Your task to perform on an android device: Search for the best selling book on Amazon. Image 0: 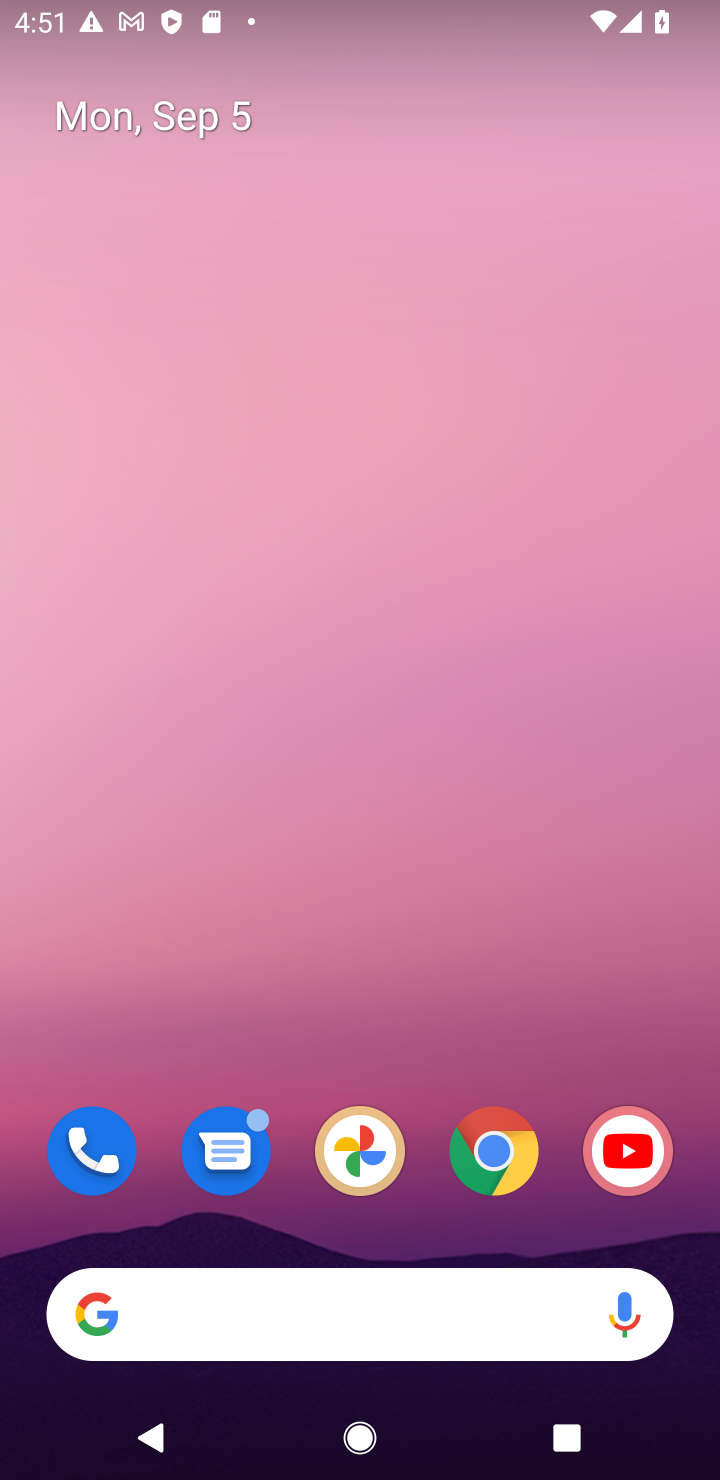
Step 0: click (500, 1164)
Your task to perform on an android device: Search for the best selling book on Amazon. Image 1: 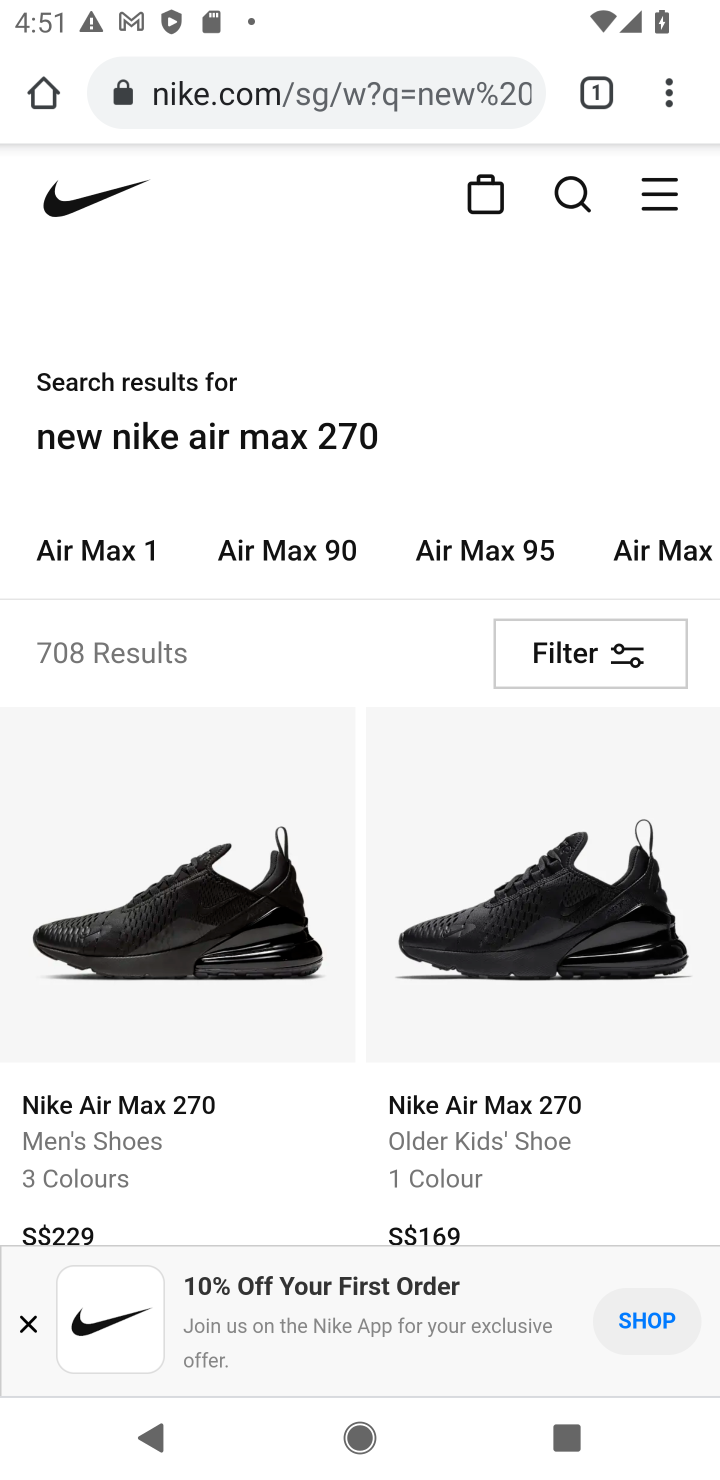
Step 1: click (393, 99)
Your task to perform on an android device: Search for the best selling book on Amazon. Image 2: 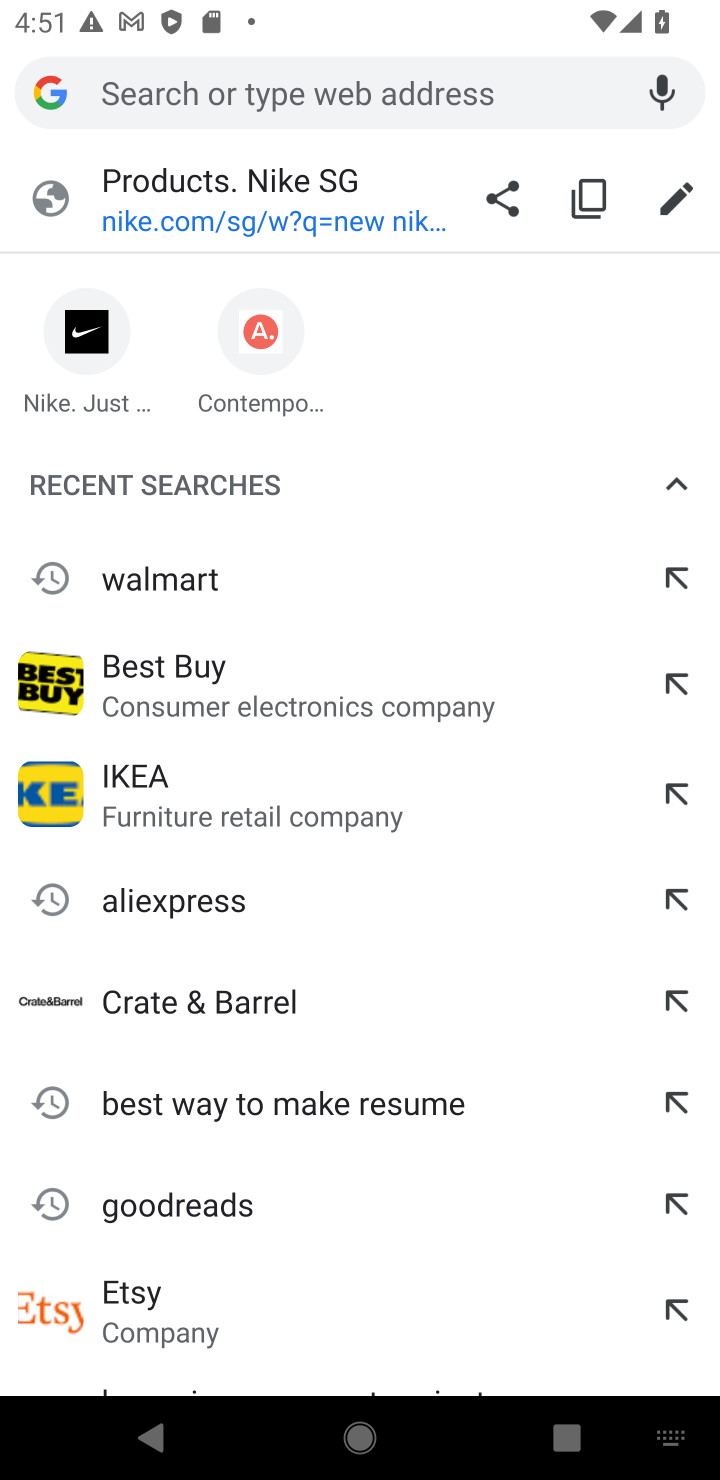
Step 2: type "amazon"
Your task to perform on an android device: Search for the best selling book on Amazon. Image 3: 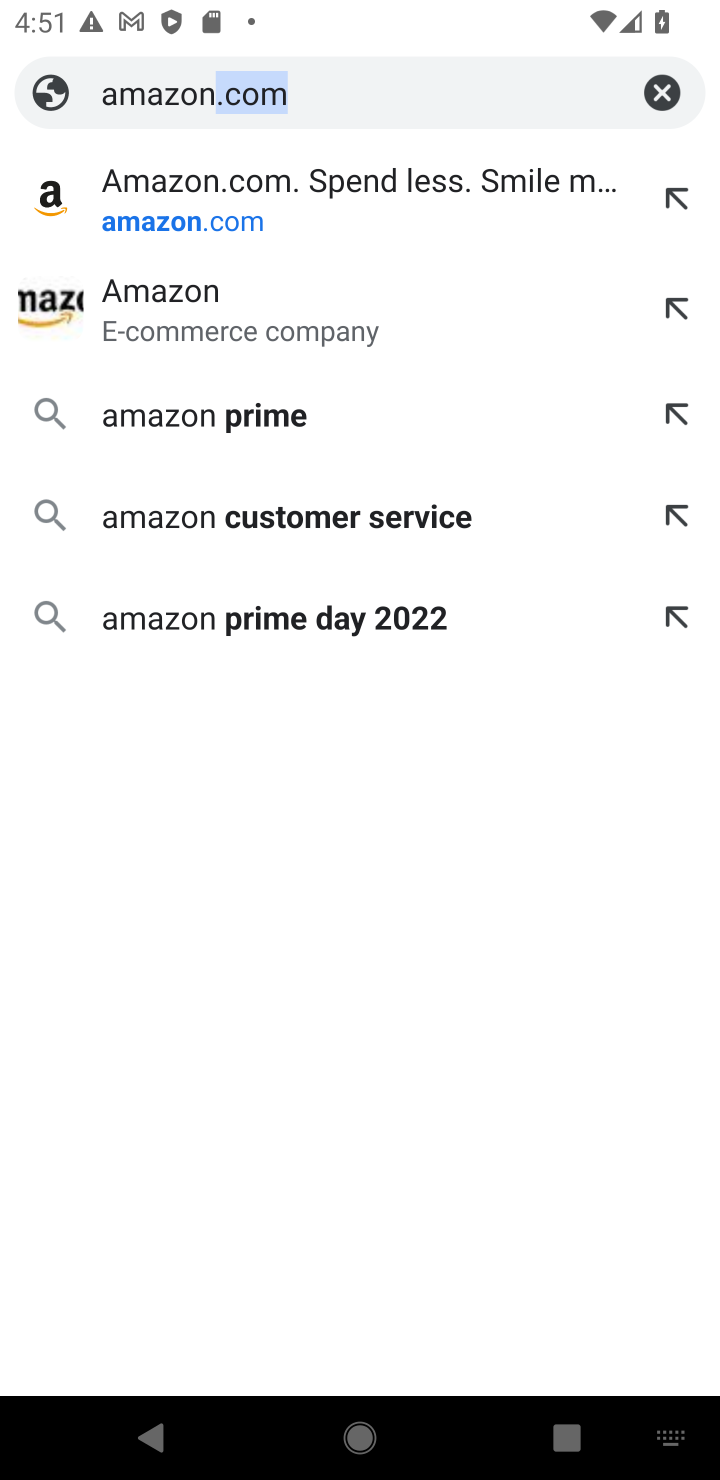
Step 3: click (387, 215)
Your task to perform on an android device: Search for the best selling book on Amazon. Image 4: 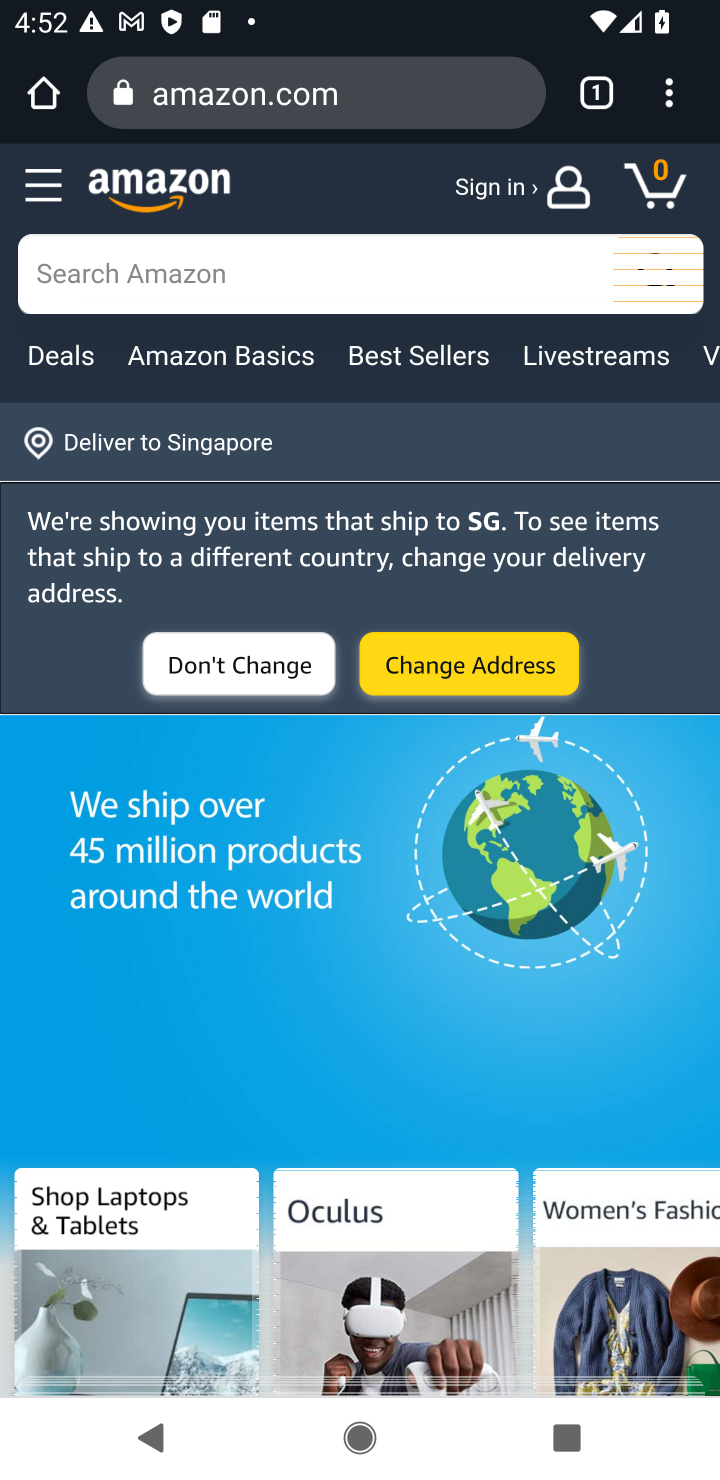
Step 4: click (380, 288)
Your task to perform on an android device: Search for the best selling book on Amazon. Image 5: 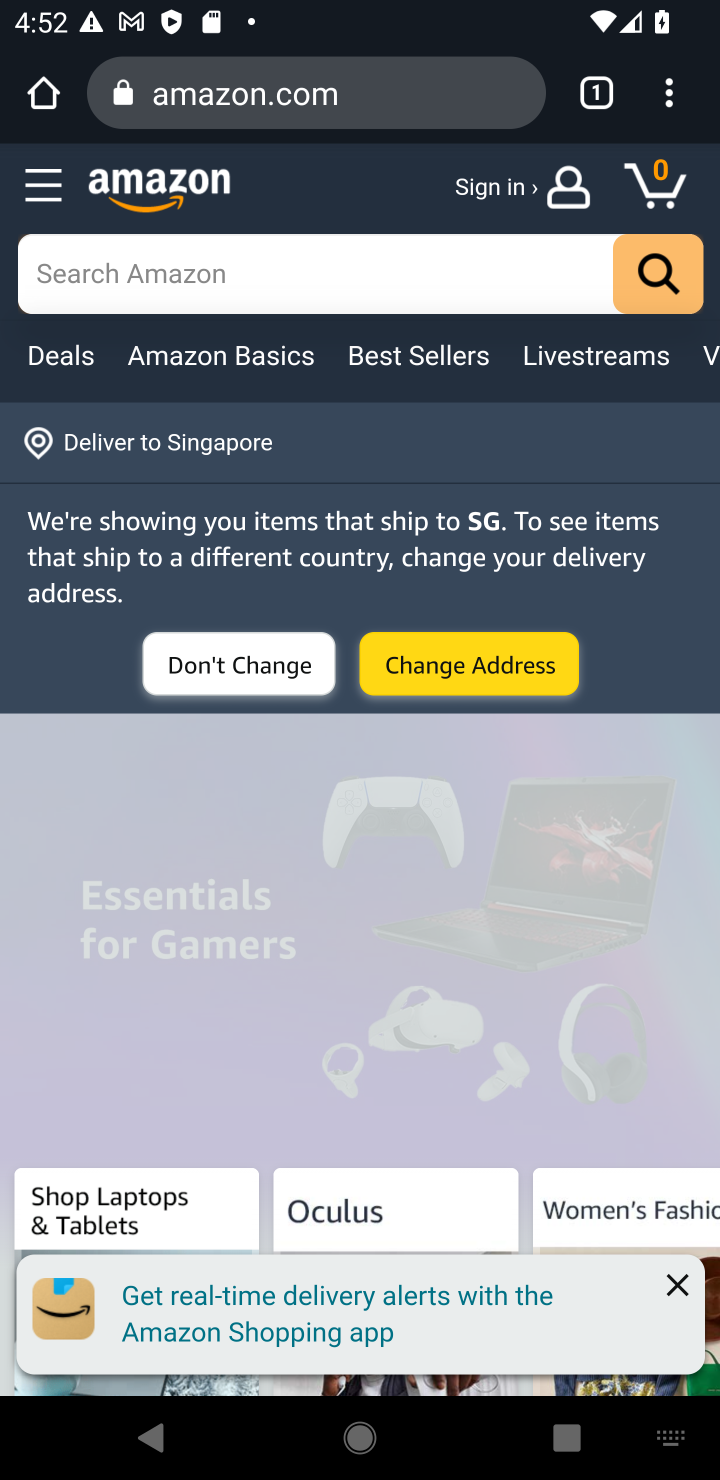
Step 5: click (380, 288)
Your task to perform on an android device: Search for the best selling book on Amazon. Image 6: 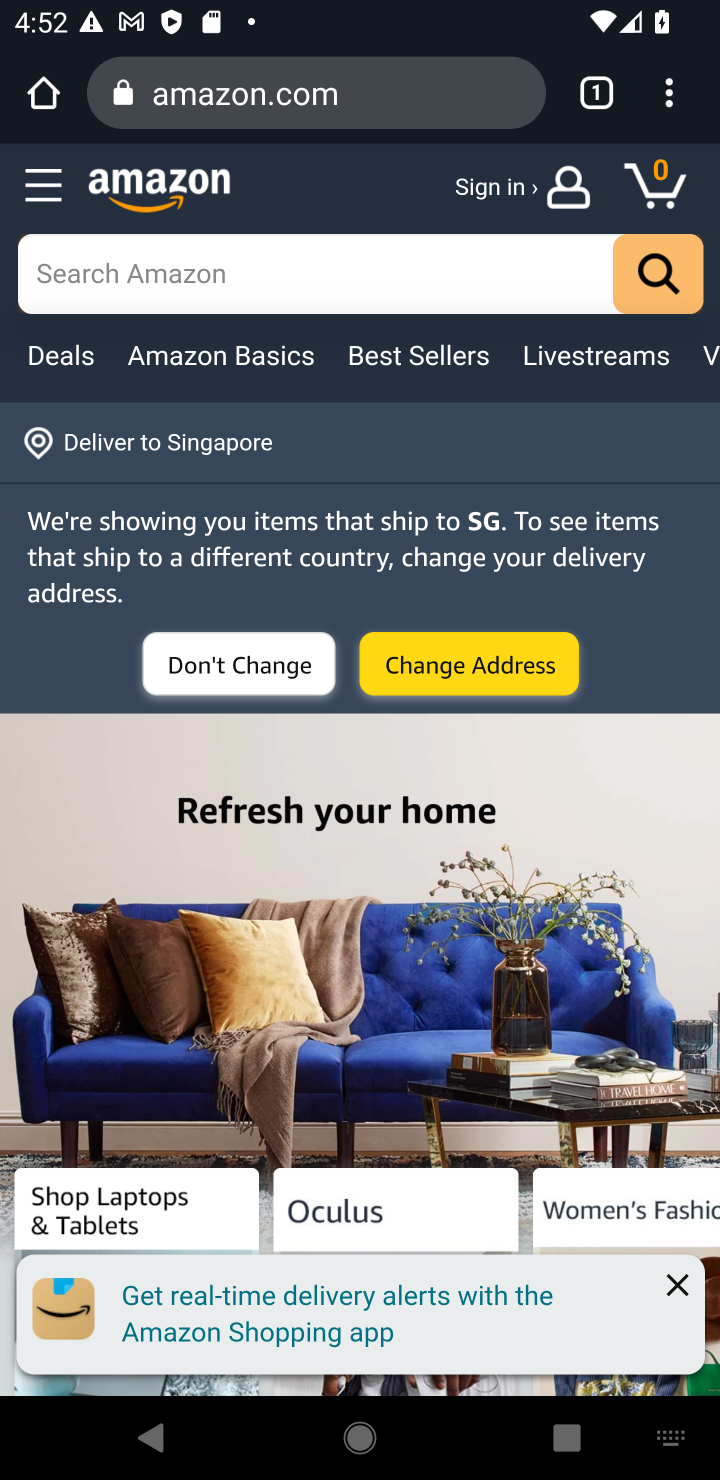
Step 6: type "best selling book"
Your task to perform on an android device: Search for the best selling book on Amazon. Image 7: 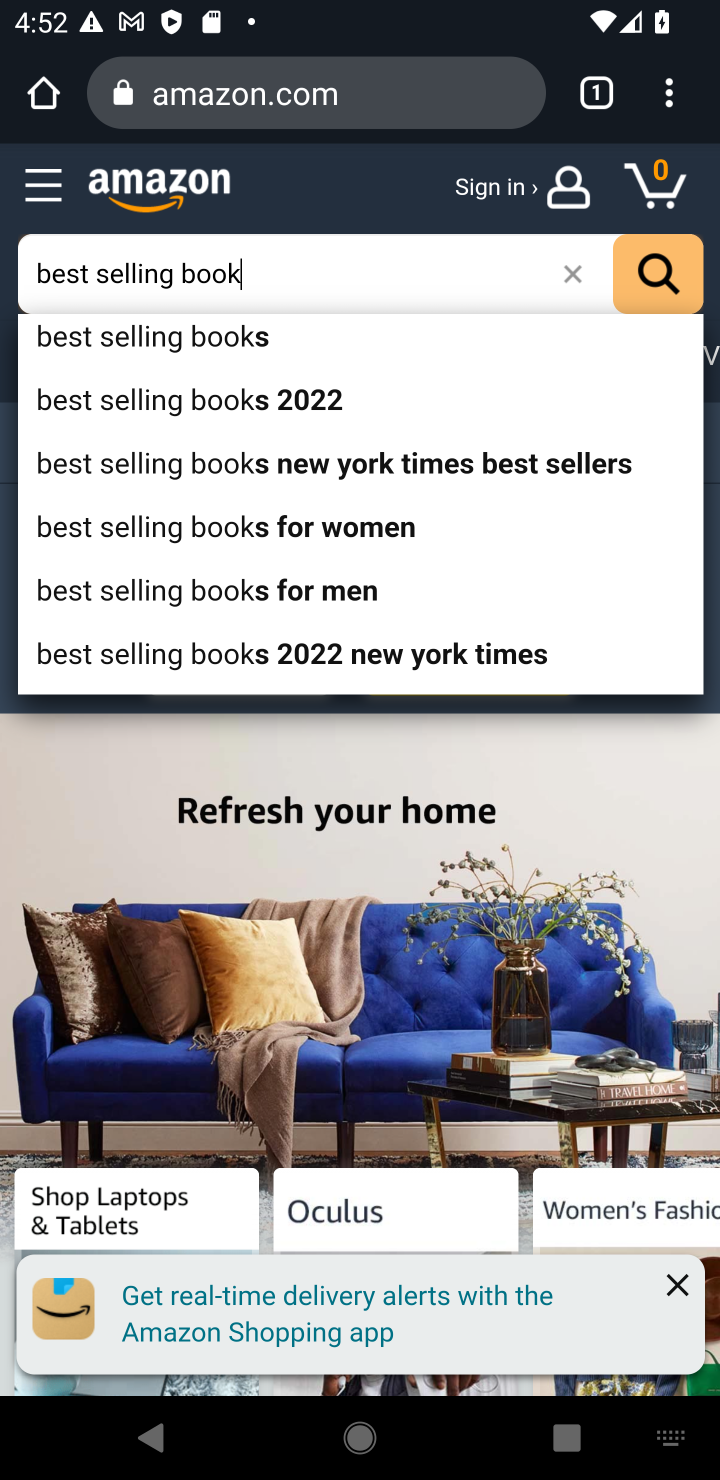
Step 7: click (226, 337)
Your task to perform on an android device: Search for the best selling book on Amazon. Image 8: 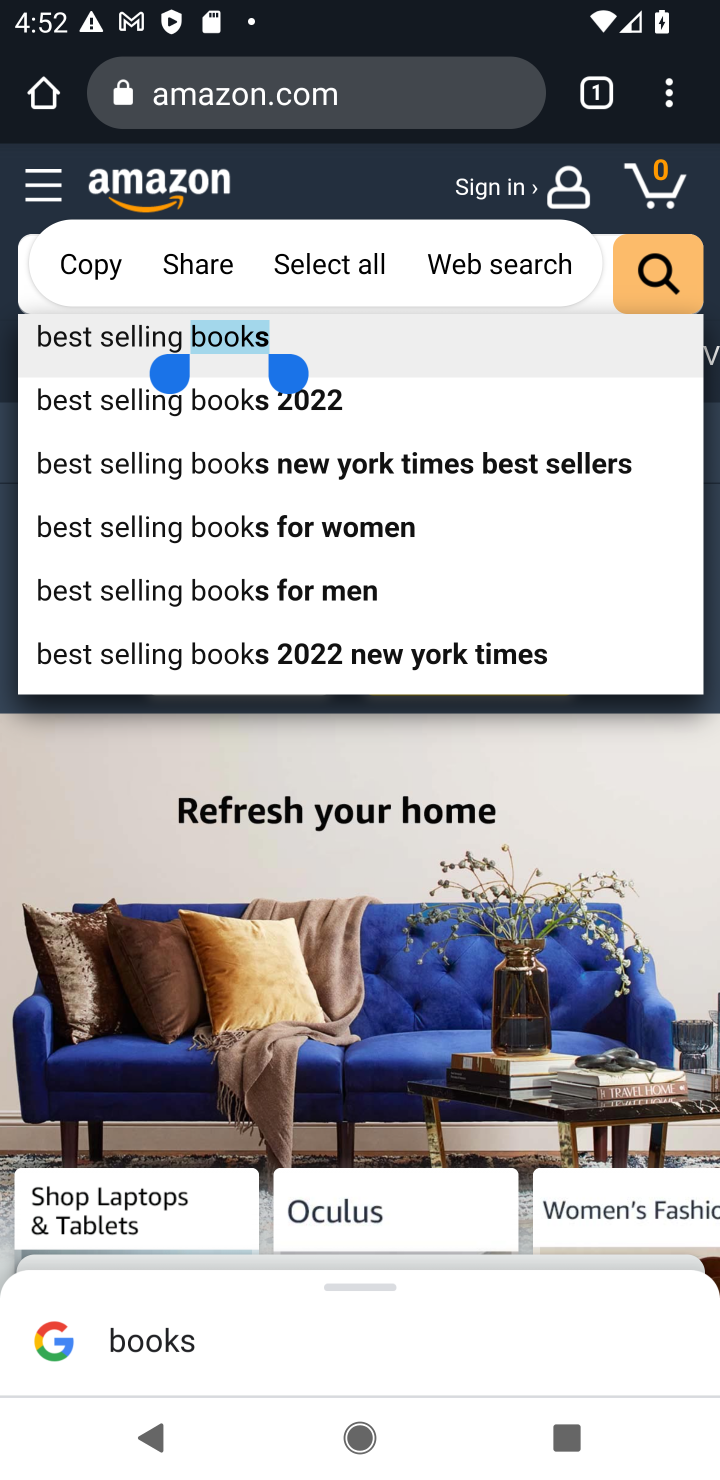
Step 8: click (649, 277)
Your task to perform on an android device: Search for the best selling book on Amazon. Image 9: 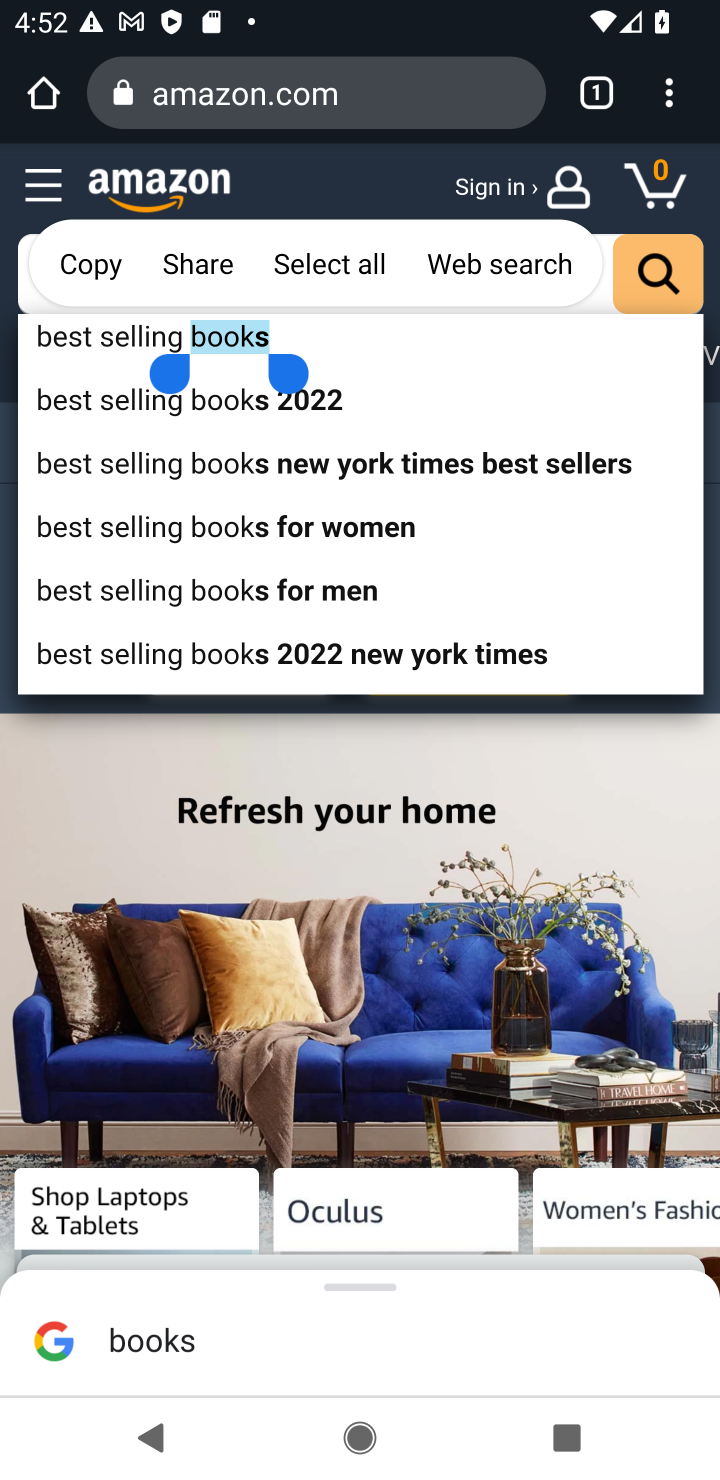
Step 9: click (649, 277)
Your task to perform on an android device: Search for the best selling book on Amazon. Image 10: 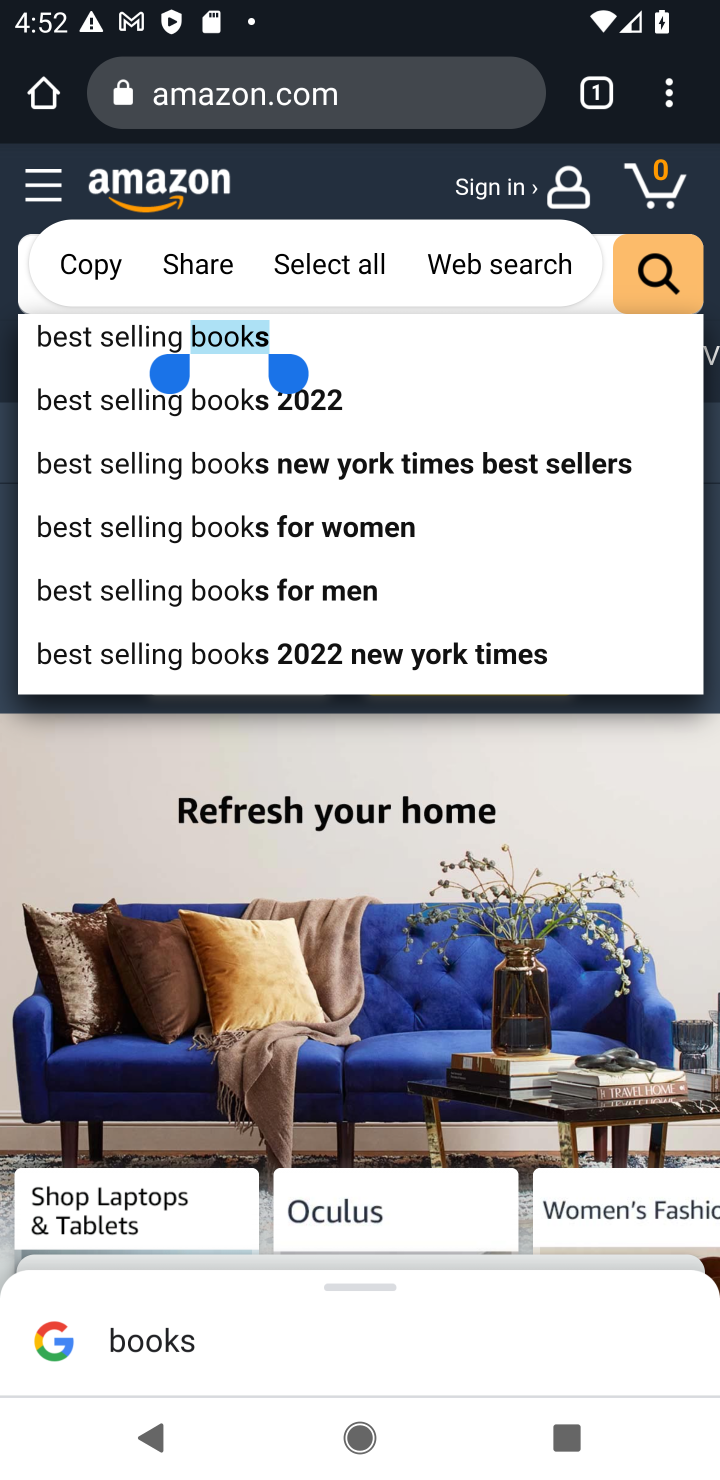
Step 10: click (118, 332)
Your task to perform on an android device: Search for the best selling book on Amazon. Image 11: 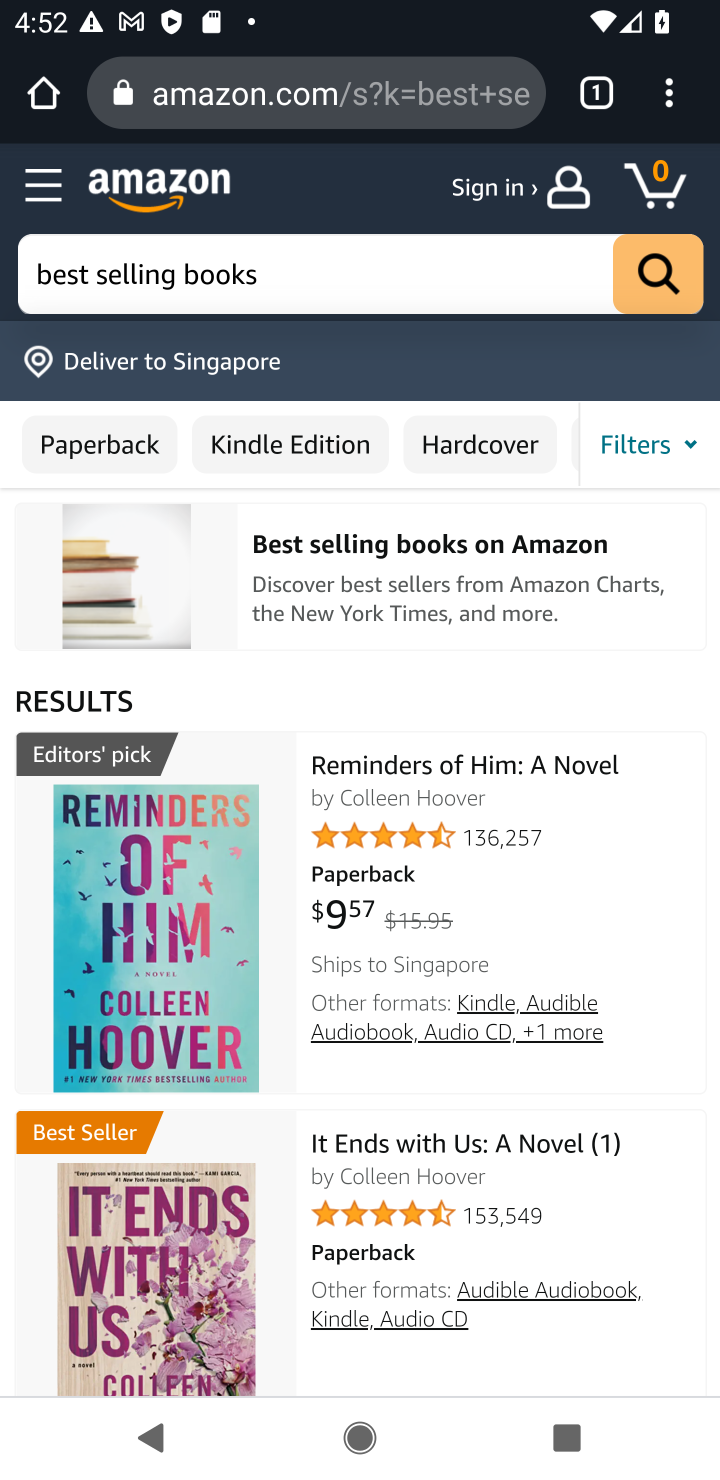
Step 11: task complete